Your task to perform on an android device: What is the recent news? Image 0: 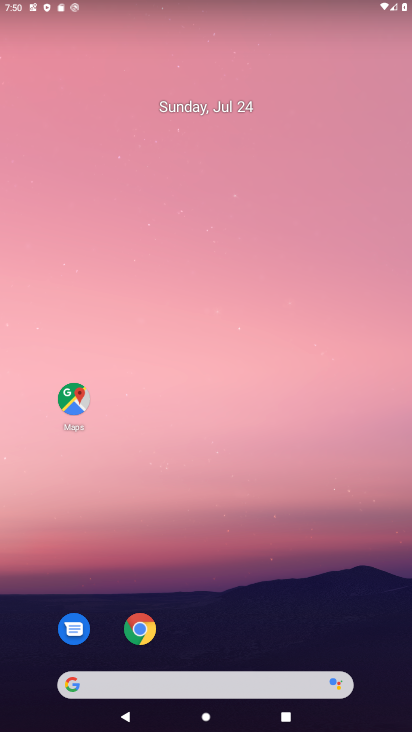
Step 0: drag from (183, 682) to (253, 315)
Your task to perform on an android device: What is the recent news? Image 1: 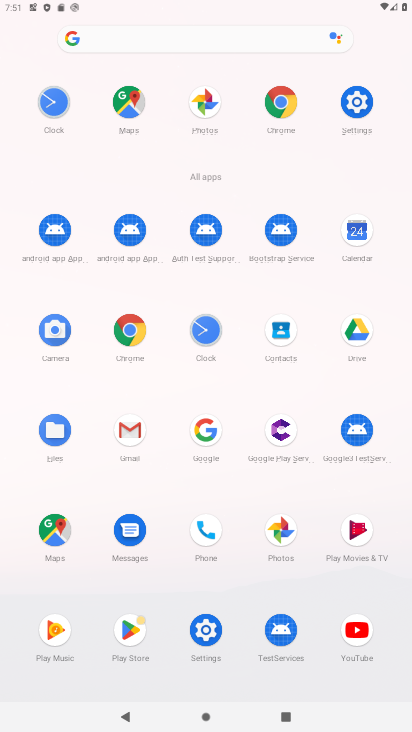
Step 1: click (210, 457)
Your task to perform on an android device: What is the recent news? Image 2: 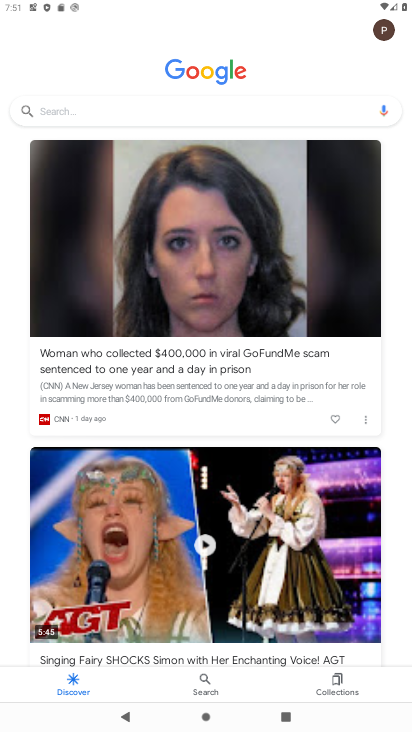
Step 2: click (248, 110)
Your task to perform on an android device: What is the recent news? Image 3: 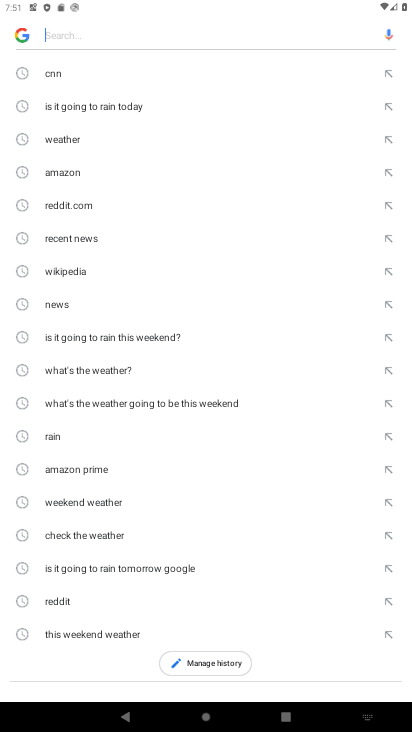
Step 3: click (86, 241)
Your task to perform on an android device: What is the recent news? Image 4: 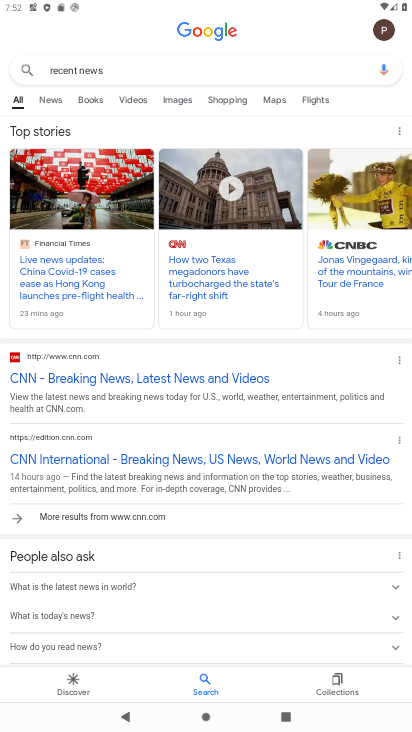
Step 4: click (47, 103)
Your task to perform on an android device: What is the recent news? Image 5: 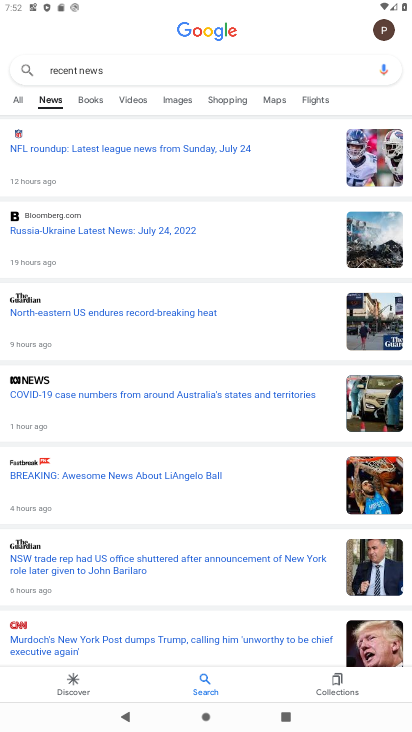
Step 5: task complete